Your task to perform on an android device: toggle notifications settings in the gmail app Image 0: 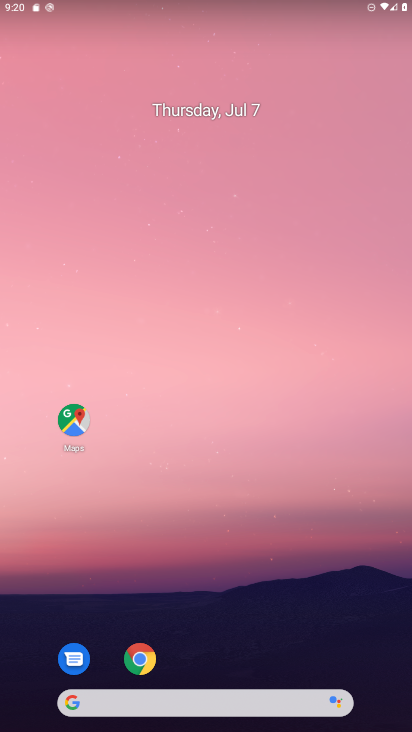
Step 0: drag from (234, 560) to (247, 4)
Your task to perform on an android device: toggle notifications settings in the gmail app Image 1: 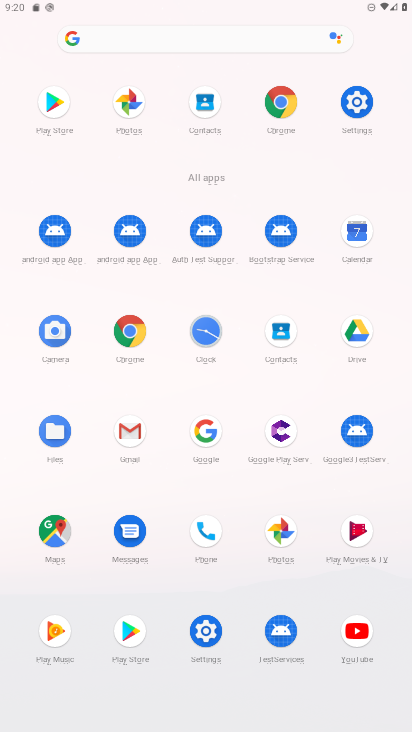
Step 1: click (125, 426)
Your task to perform on an android device: toggle notifications settings in the gmail app Image 2: 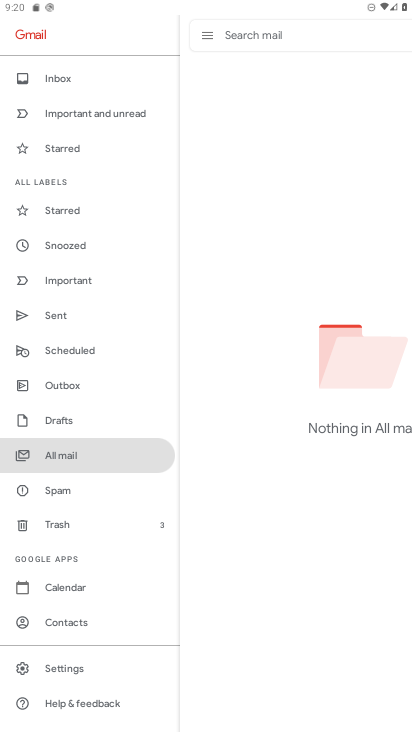
Step 2: click (82, 667)
Your task to perform on an android device: toggle notifications settings in the gmail app Image 3: 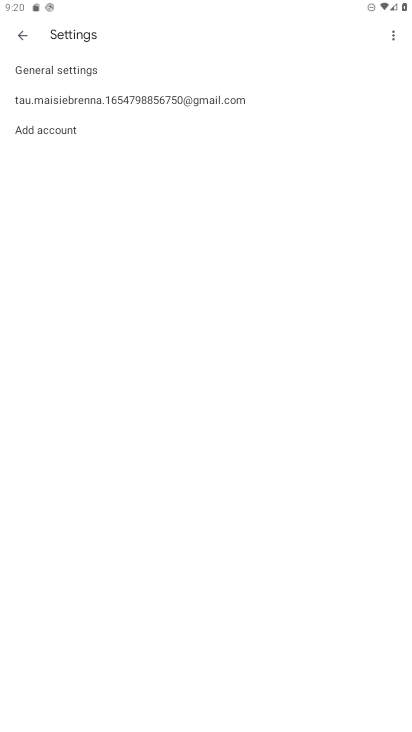
Step 3: click (161, 100)
Your task to perform on an android device: toggle notifications settings in the gmail app Image 4: 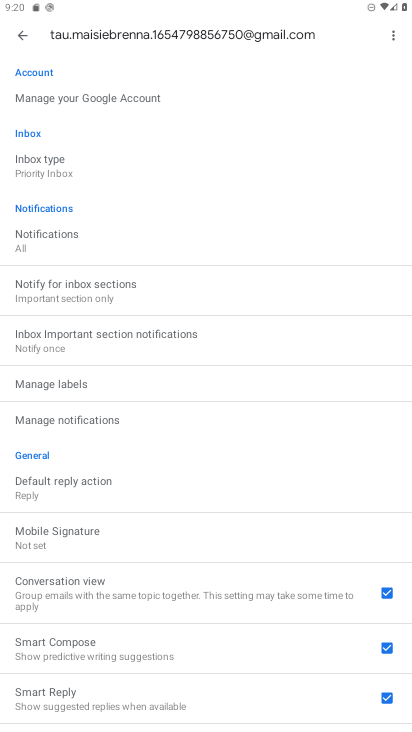
Step 4: click (133, 417)
Your task to perform on an android device: toggle notifications settings in the gmail app Image 5: 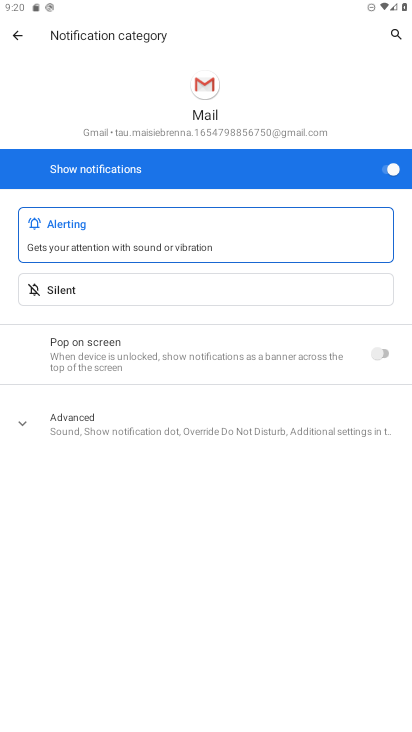
Step 5: click (398, 164)
Your task to perform on an android device: toggle notifications settings in the gmail app Image 6: 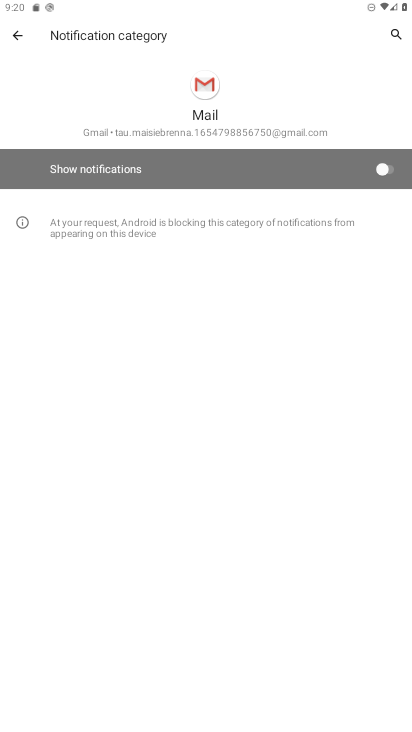
Step 6: task complete